Your task to perform on an android device: Is it going to rain tomorrow? Image 0: 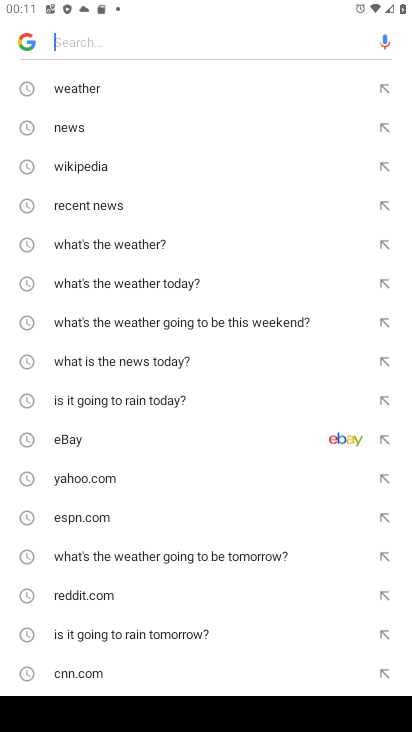
Step 0: click (79, 86)
Your task to perform on an android device: Is it going to rain tomorrow? Image 1: 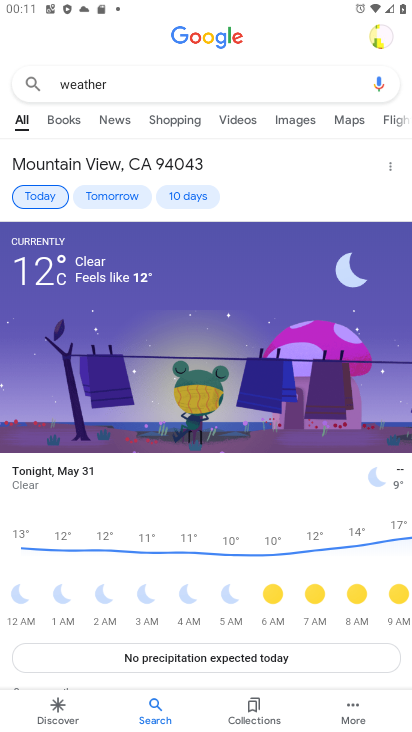
Step 1: click (122, 193)
Your task to perform on an android device: Is it going to rain tomorrow? Image 2: 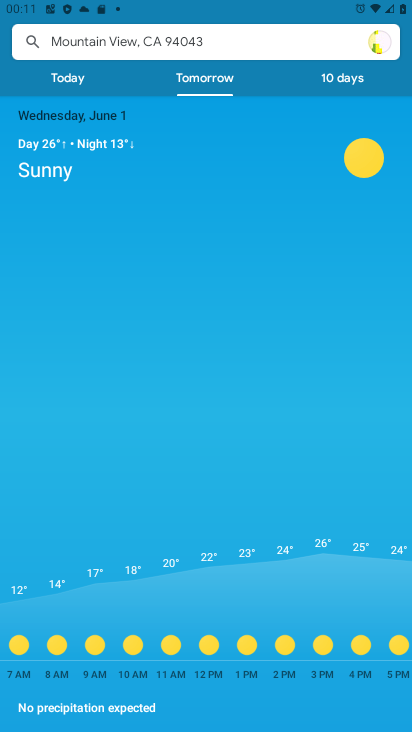
Step 2: task complete